Your task to perform on an android device: What's the news in Chile? Image 0: 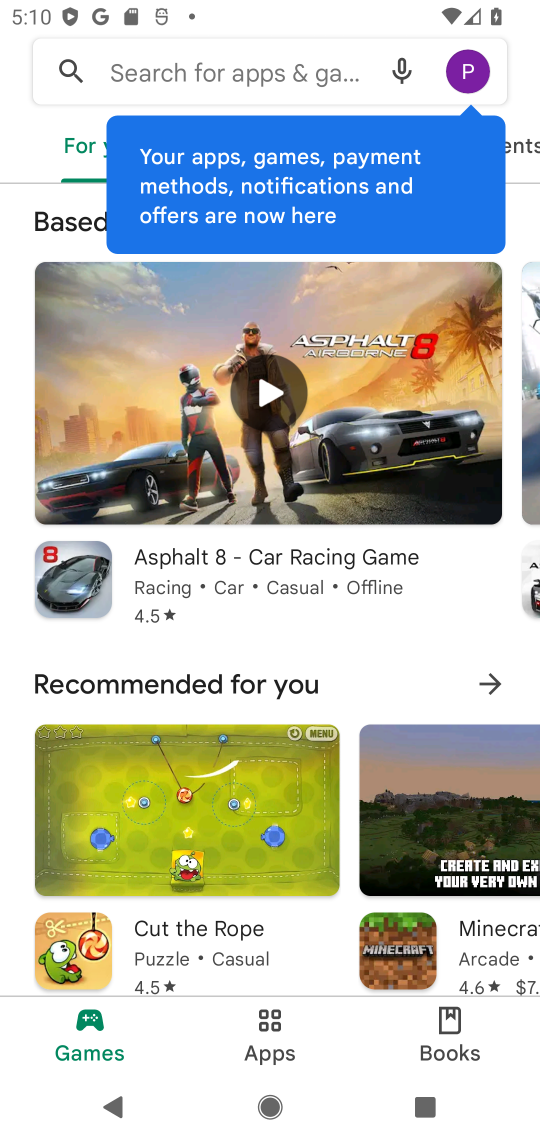
Step 0: press home button
Your task to perform on an android device: What's the news in Chile? Image 1: 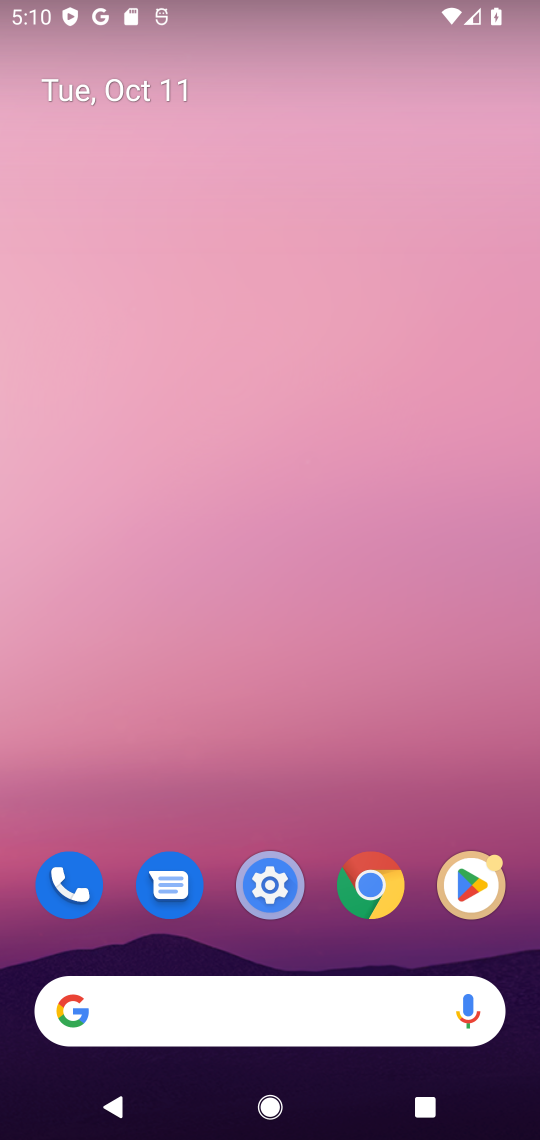
Step 1: drag from (338, 821) to (301, 158)
Your task to perform on an android device: What's the news in Chile? Image 2: 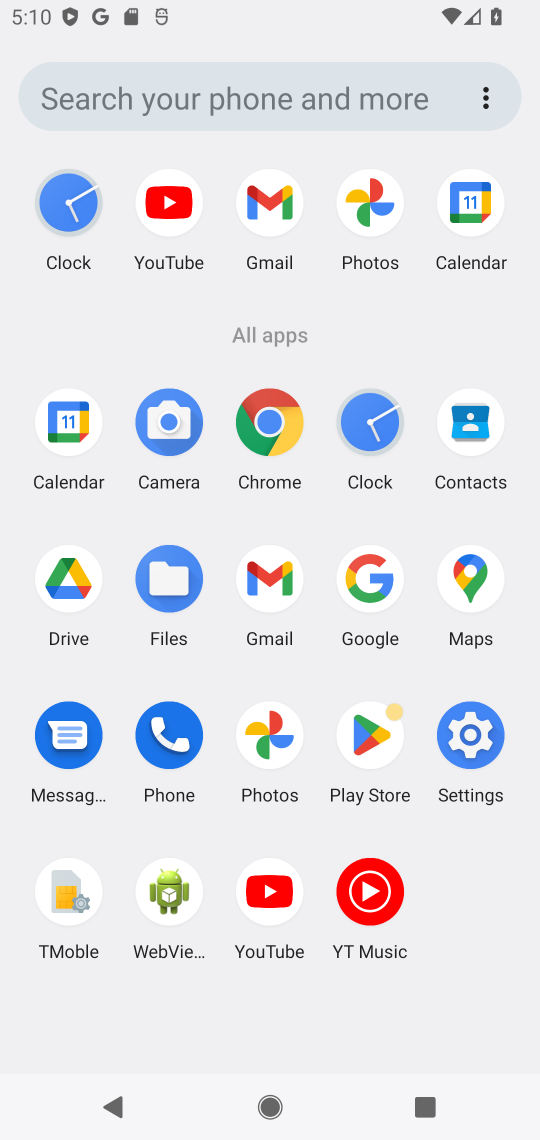
Step 2: click (273, 437)
Your task to perform on an android device: What's the news in Chile? Image 3: 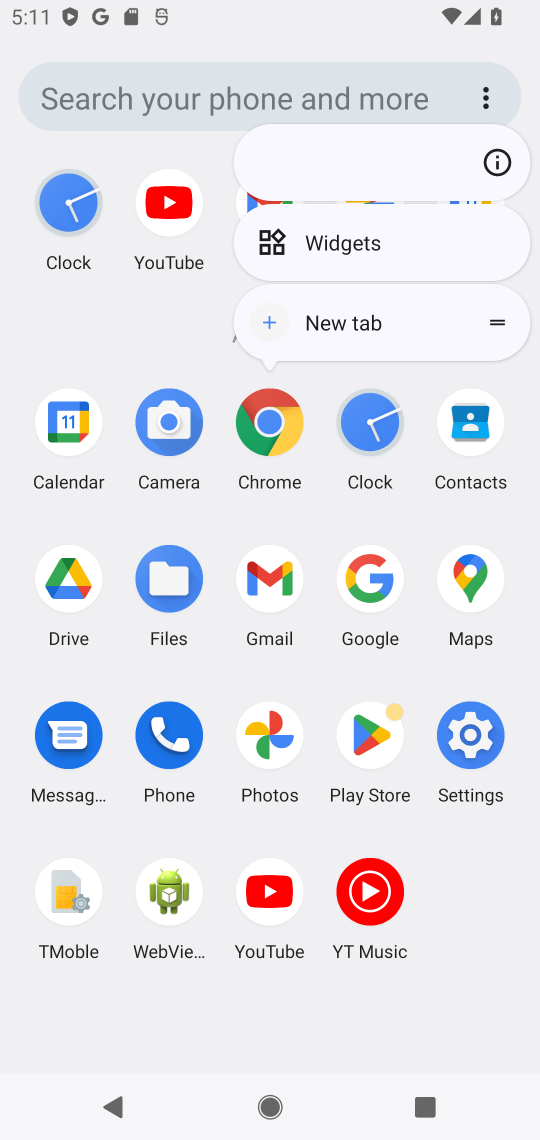
Step 3: click (263, 437)
Your task to perform on an android device: What's the news in Chile? Image 4: 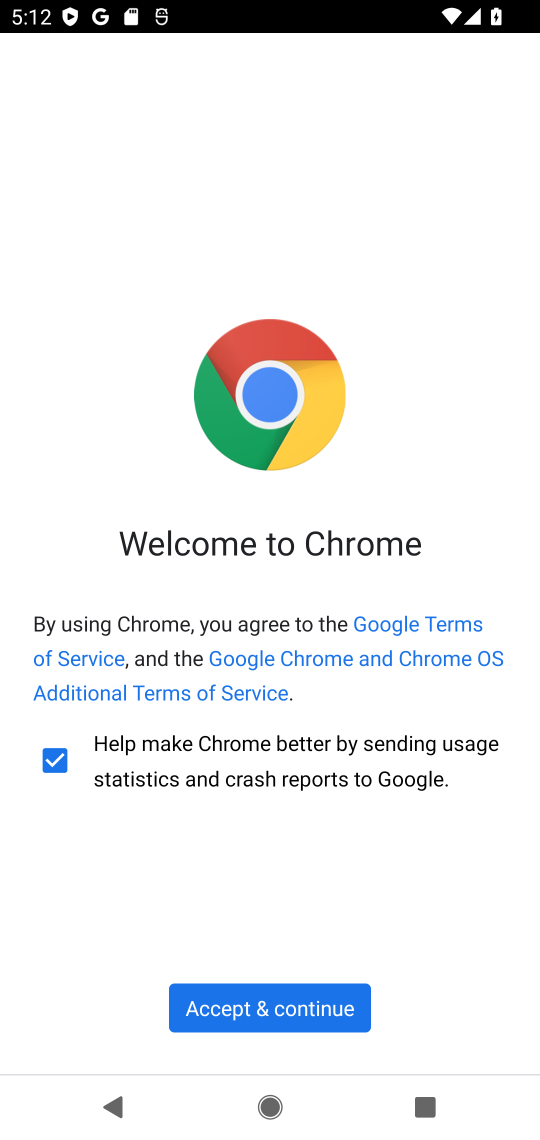
Step 4: click (256, 1023)
Your task to perform on an android device: What's the news in Chile? Image 5: 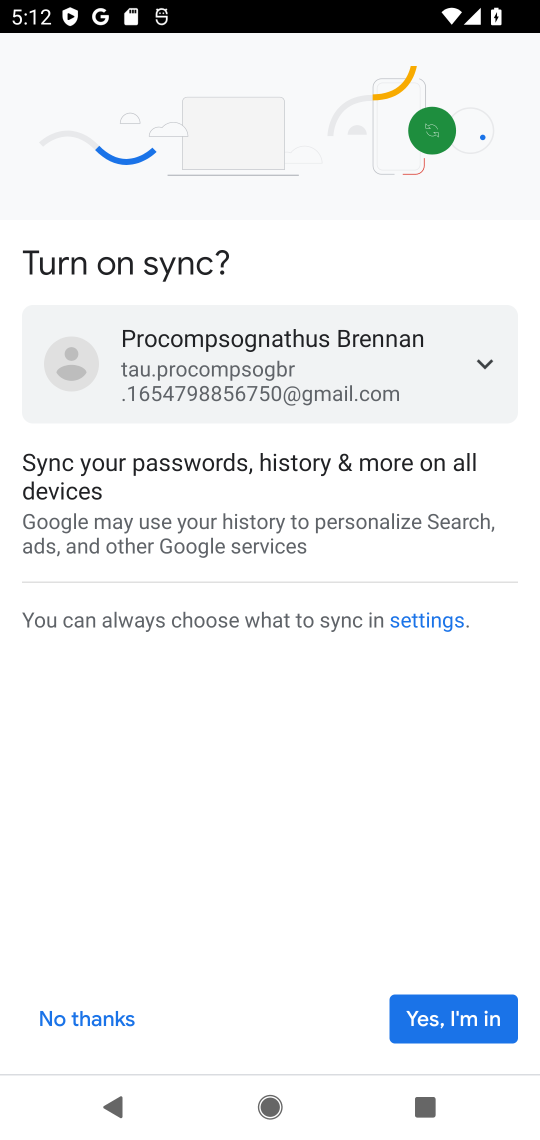
Step 5: click (477, 1026)
Your task to perform on an android device: What's the news in Chile? Image 6: 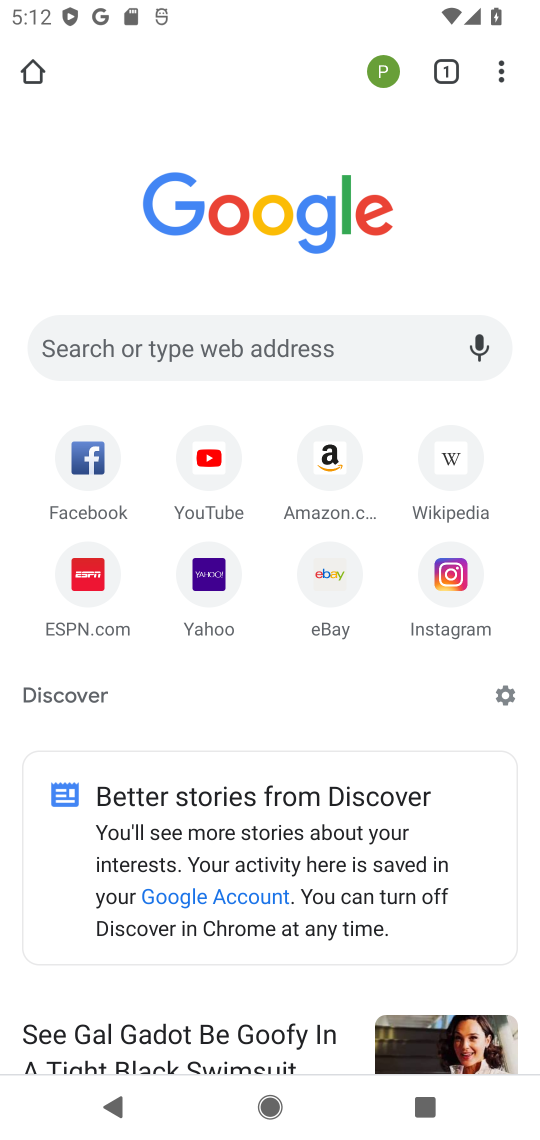
Step 6: click (148, 345)
Your task to perform on an android device: What's the news in Chile? Image 7: 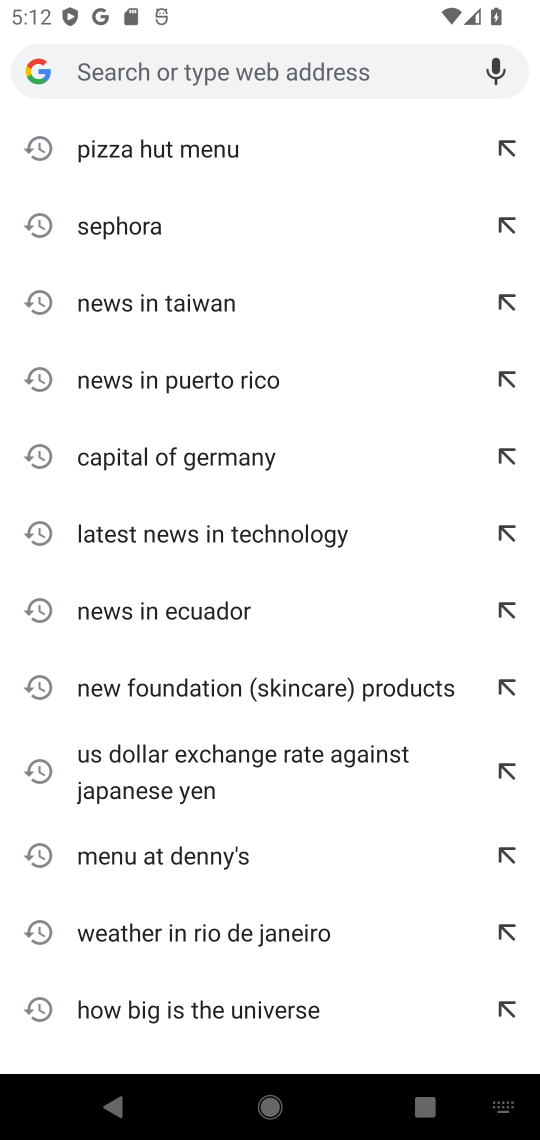
Step 7: type "What's the news in Chile?"
Your task to perform on an android device: What's the news in Chile? Image 8: 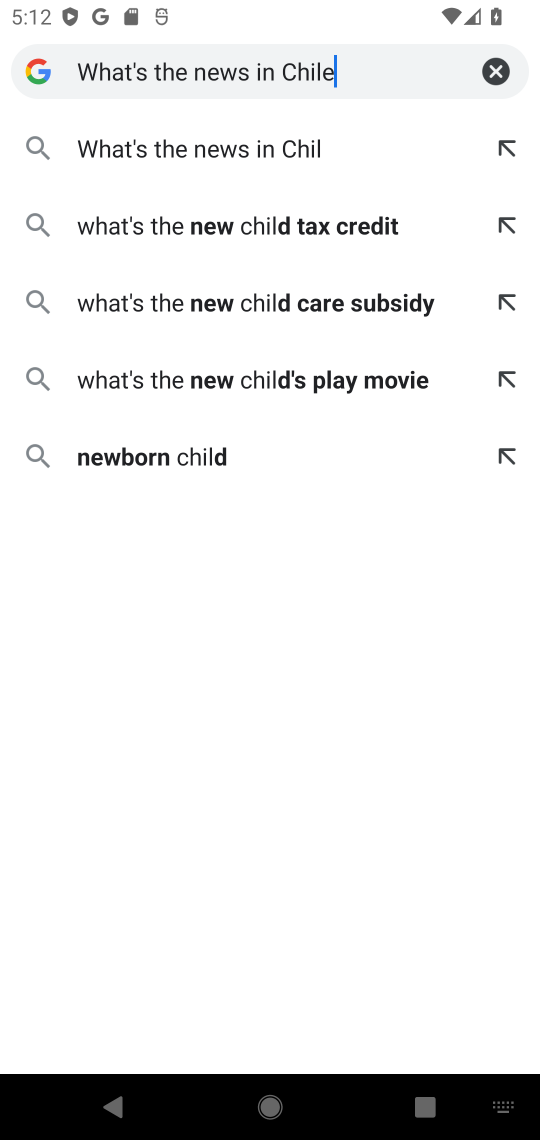
Step 8: press enter
Your task to perform on an android device: What's the news in Chile? Image 9: 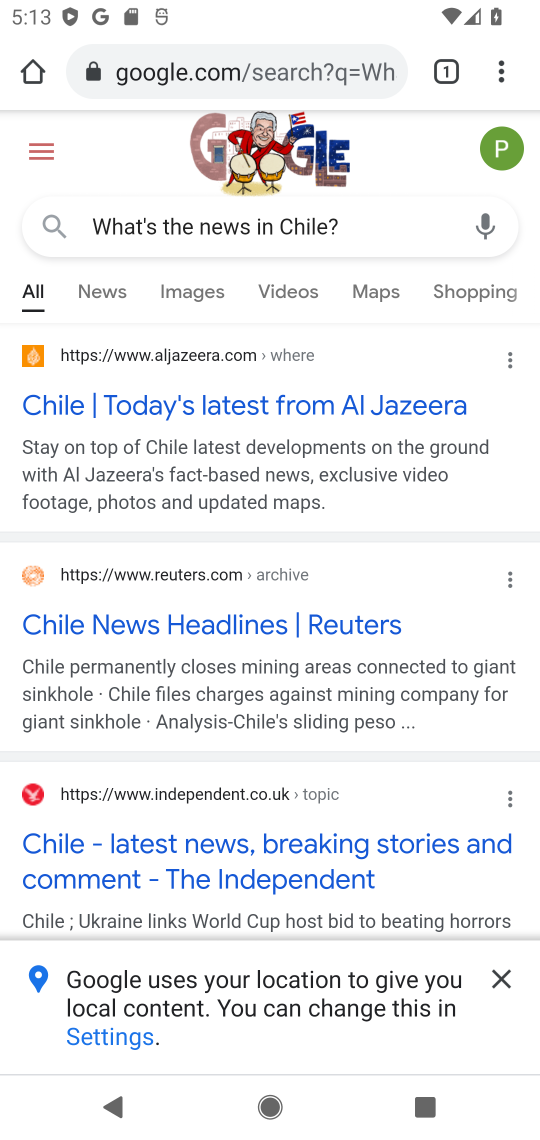
Step 9: click (119, 384)
Your task to perform on an android device: What's the news in Chile? Image 10: 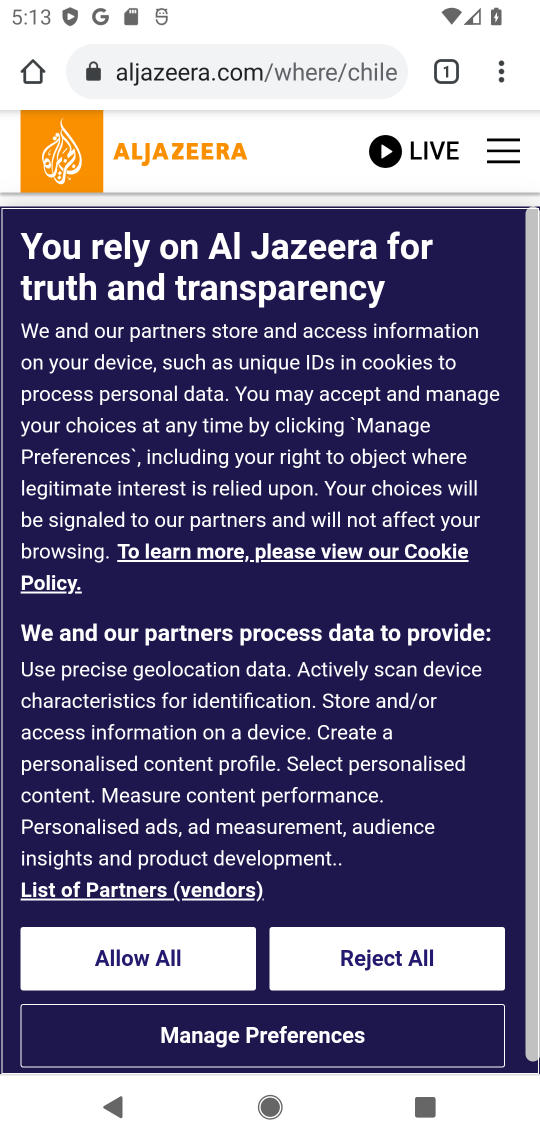
Step 10: task complete